Your task to perform on an android device: Empty the shopping cart on target. Search for logitech g pro on target, select the first entry, add it to the cart, then select checkout. Image 0: 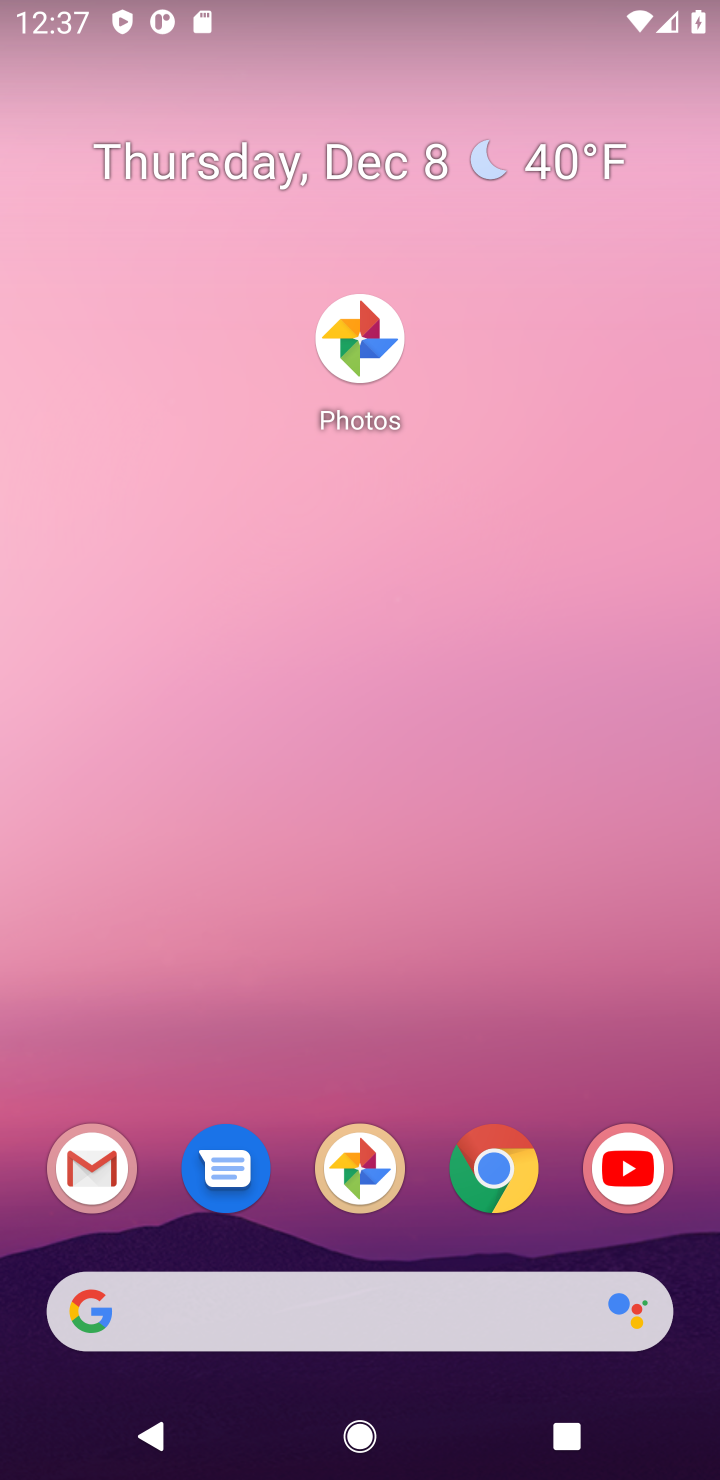
Step 0: drag from (360, 1212) to (487, 439)
Your task to perform on an android device: Empty the shopping cart on target. Search for logitech g pro on target, select the first entry, add it to the cart, then select checkout. Image 1: 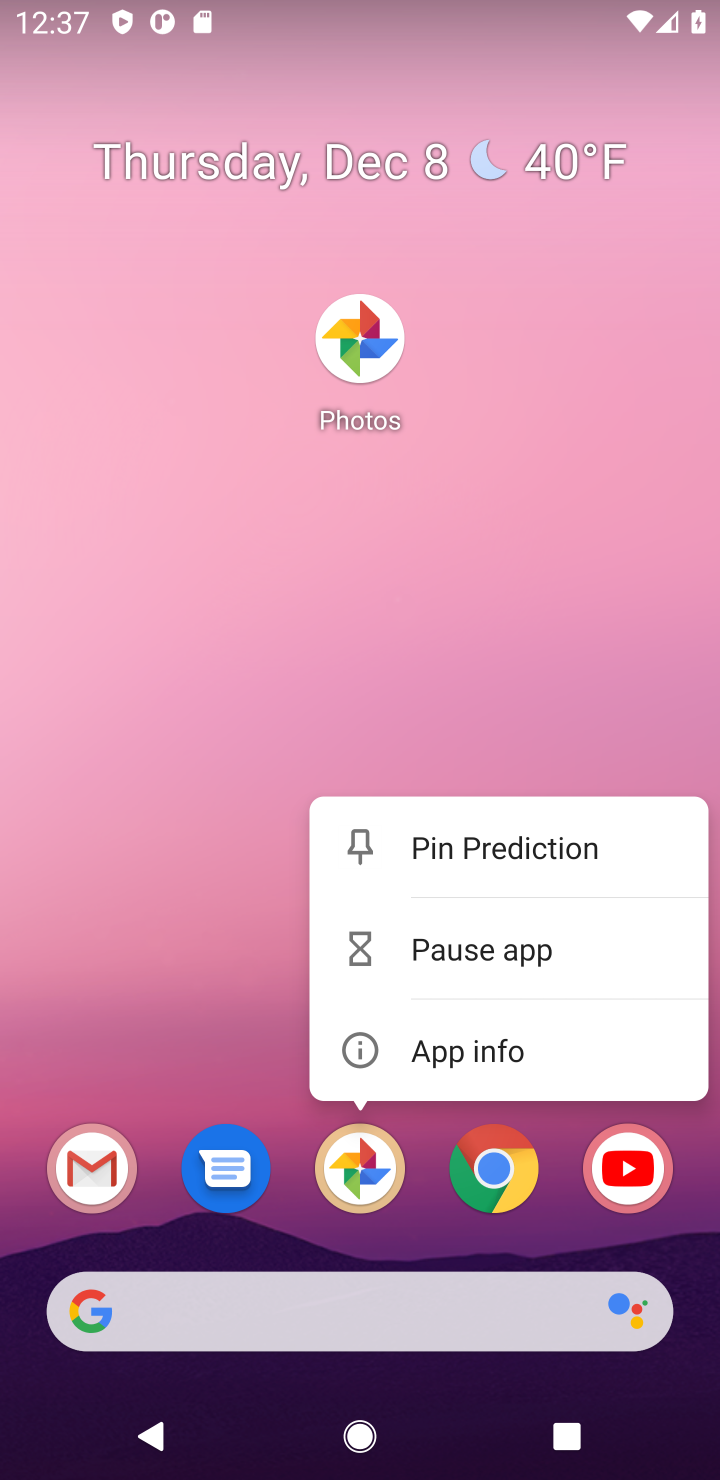
Step 1: drag from (203, 1128) to (295, 380)
Your task to perform on an android device: Empty the shopping cart on target. Search for logitech g pro on target, select the first entry, add it to the cart, then select checkout. Image 2: 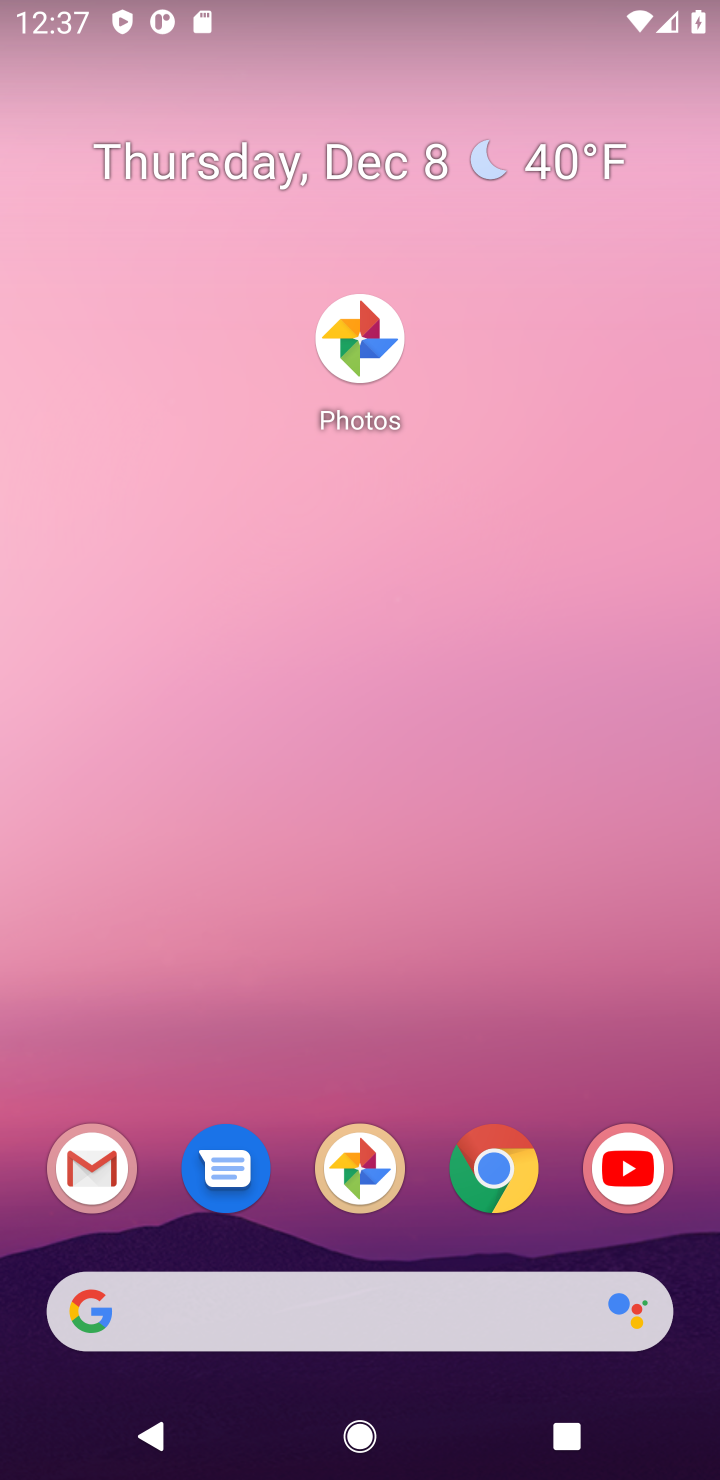
Step 2: drag from (290, 1082) to (288, 698)
Your task to perform on an android device: Empty the shopping cart on target. Search for logitech g pro on target, select the first entry, add it to the cart, then select checkout. Image 3: 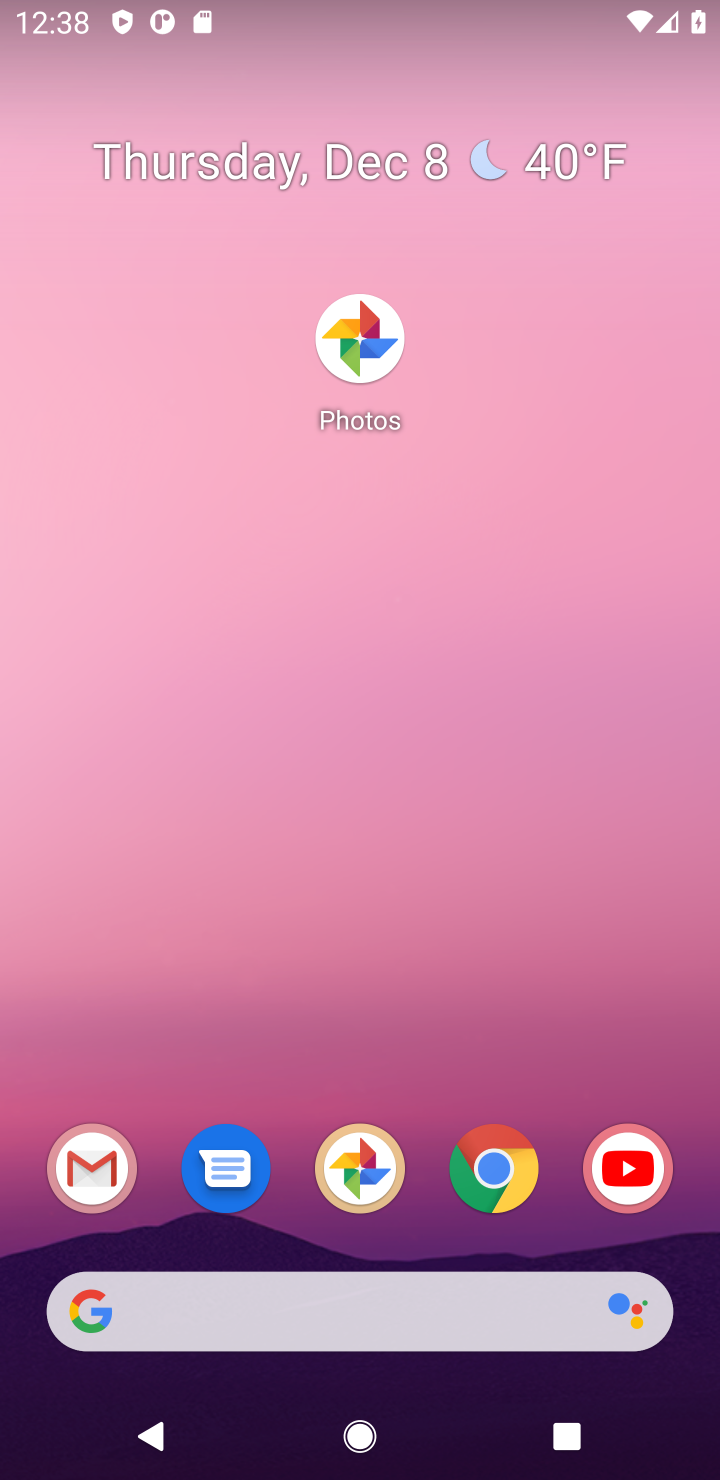
Step 3: drag from (415, 1067) to (438, 217)
Your task to perform on an android device: Empty the shopping cart on target. Search for logitech g pro on target, select the first entry, add it to the cart, then select checkout. Image 4: 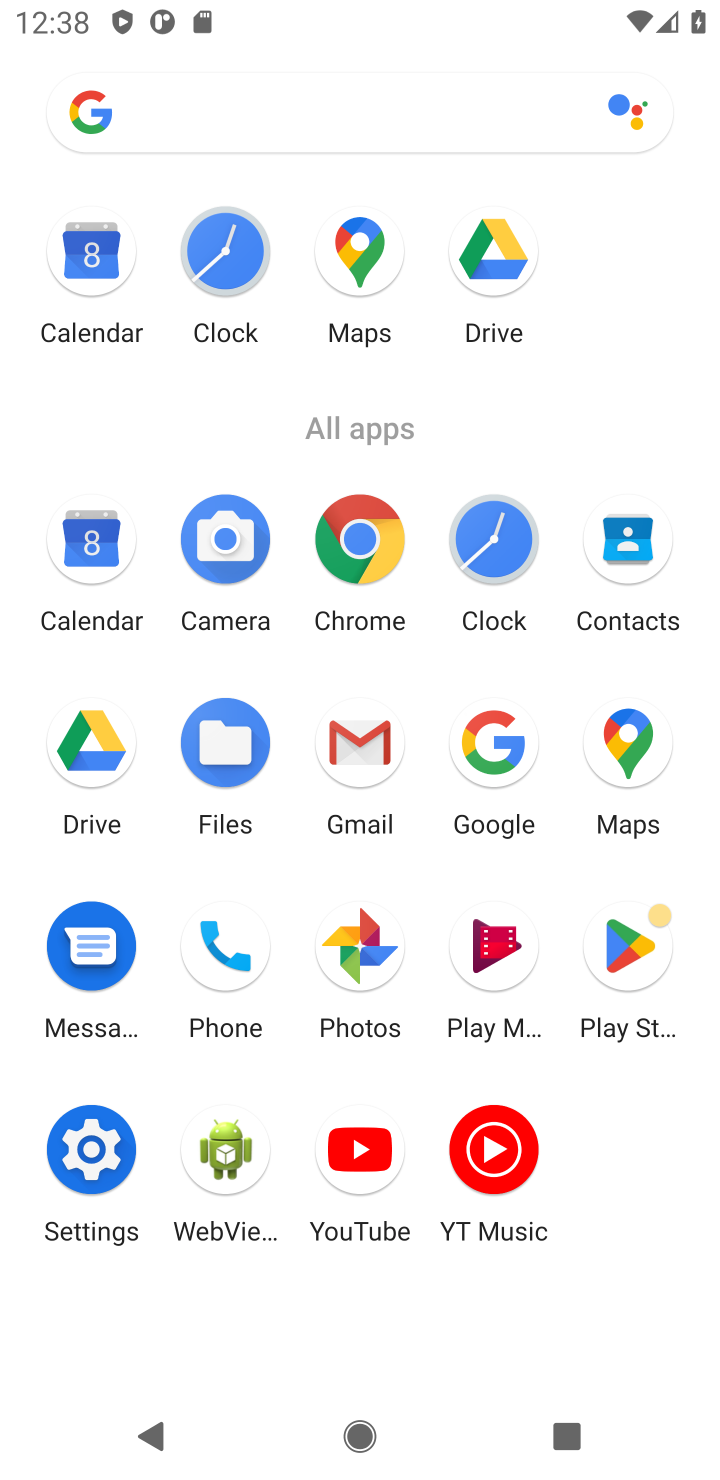
Step 4: click (502, 744)
Your task to perform on an android device: Empty the shopping cart on target. Search for logitech g pro on target, select the first entry, add it to the cart, then select checkout. Image 5: 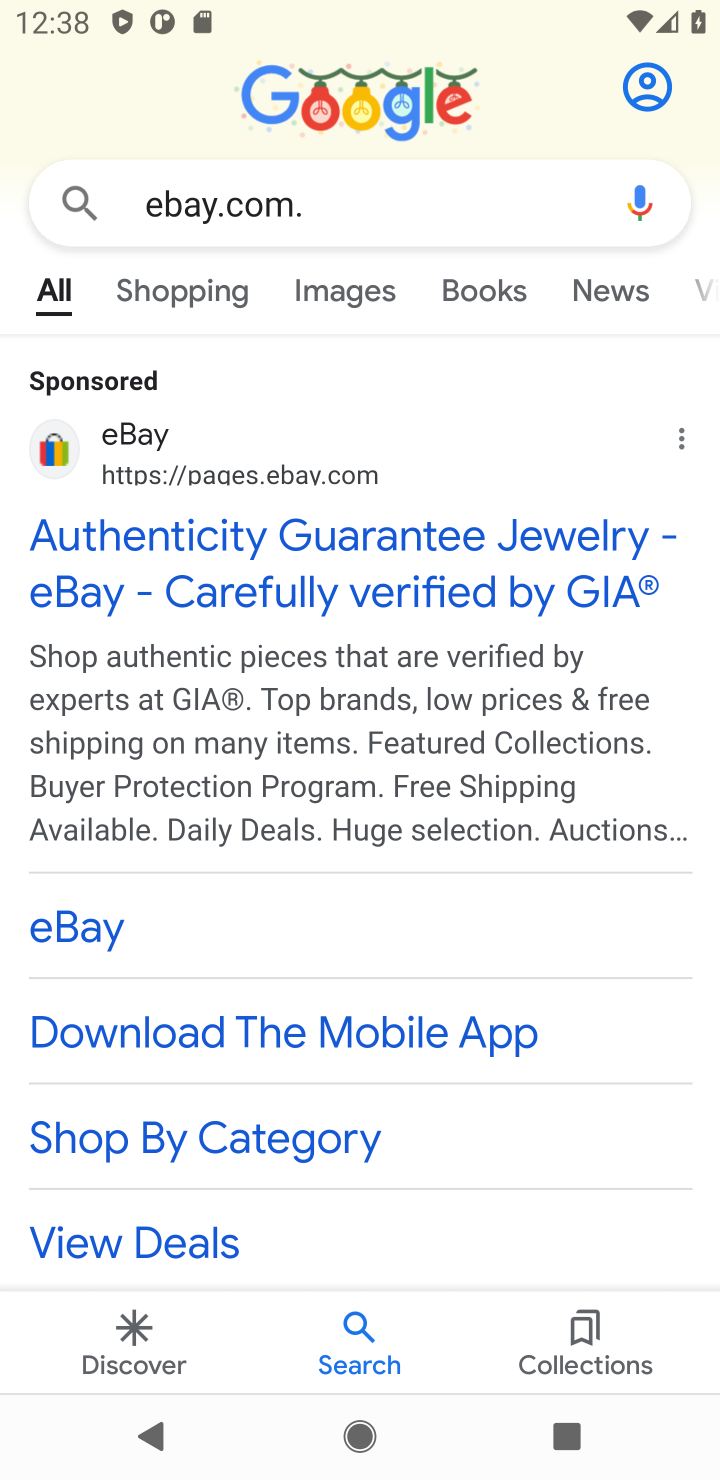
Step 5: click (254, 204)
Your task to perform on an android device: Empty the shopping cart on target. Search for logitech g pro on target, select the first entry, add it to the cart, then select checkout. Image 6: 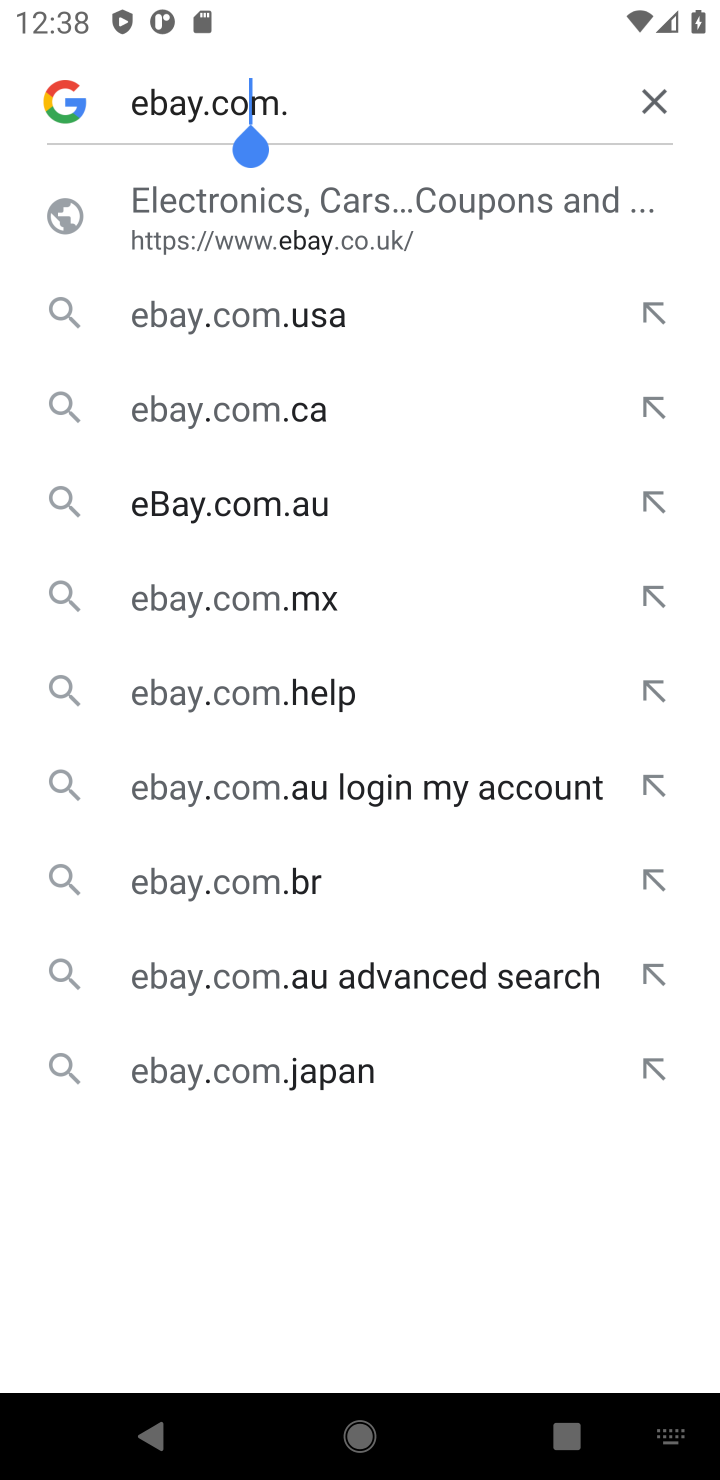
Step 6: click (638, 106)
Your task to perform on an android device: Empty the shopping cart on target. Search for logitech g pro on target, select the first entry, add it to the cart, then select checkout. Image 7: 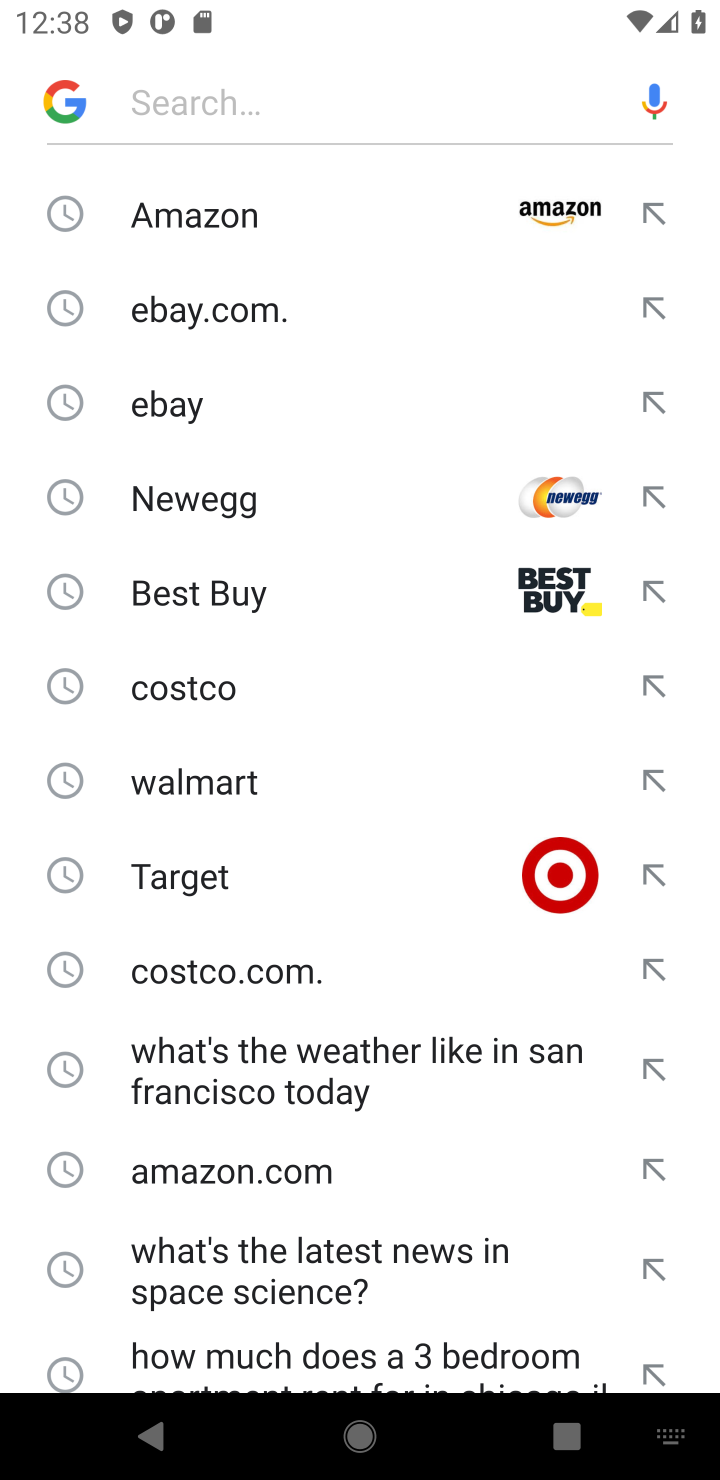
Step 7: click (215, 876)
Your task to perform on an android device: Empty the shopping cart on target. Search for logitech g pro on target, select the first entry, add it to the cart, then select checkout. Image 8: 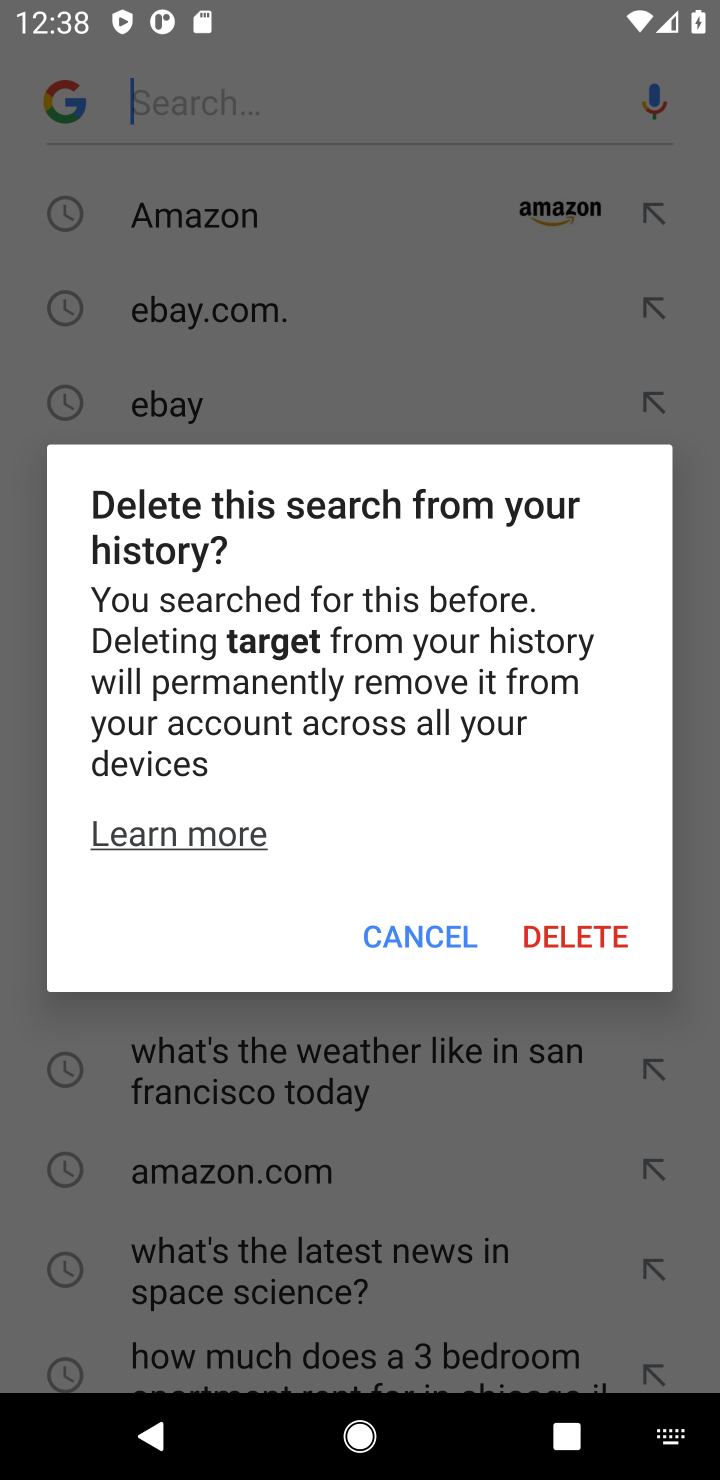
Step 8: click (410, 948)
Your task to perform on an android device: Empty the shopping cart on target. Search for logitech g pro on target, select the first entry, add it to the cart, then select checkout. Image 9: 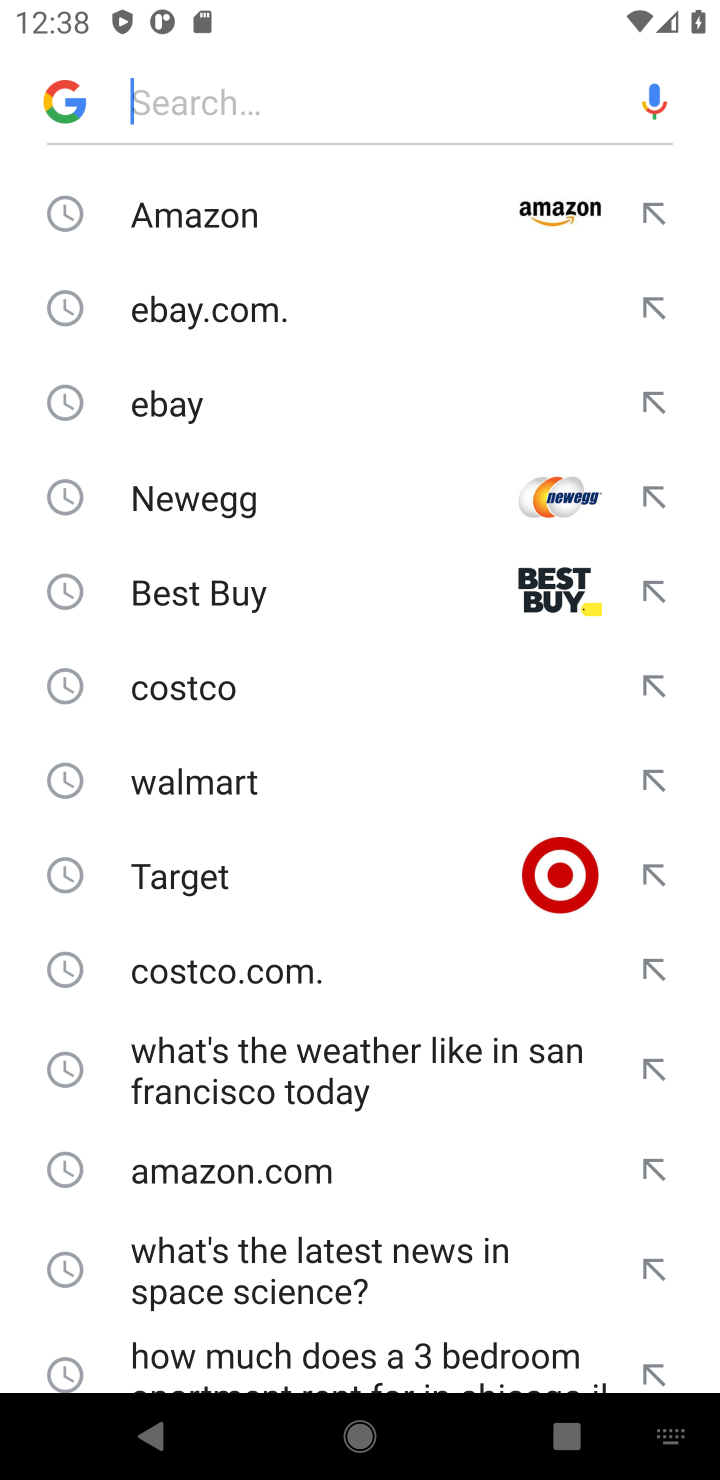
Step 9: click (583, 872)
Your task to perform on an android device: Empty the shopping cart on target. Search for logitech g pro on target, select the first entry, add it to the cart, then select checkout. Image 10: 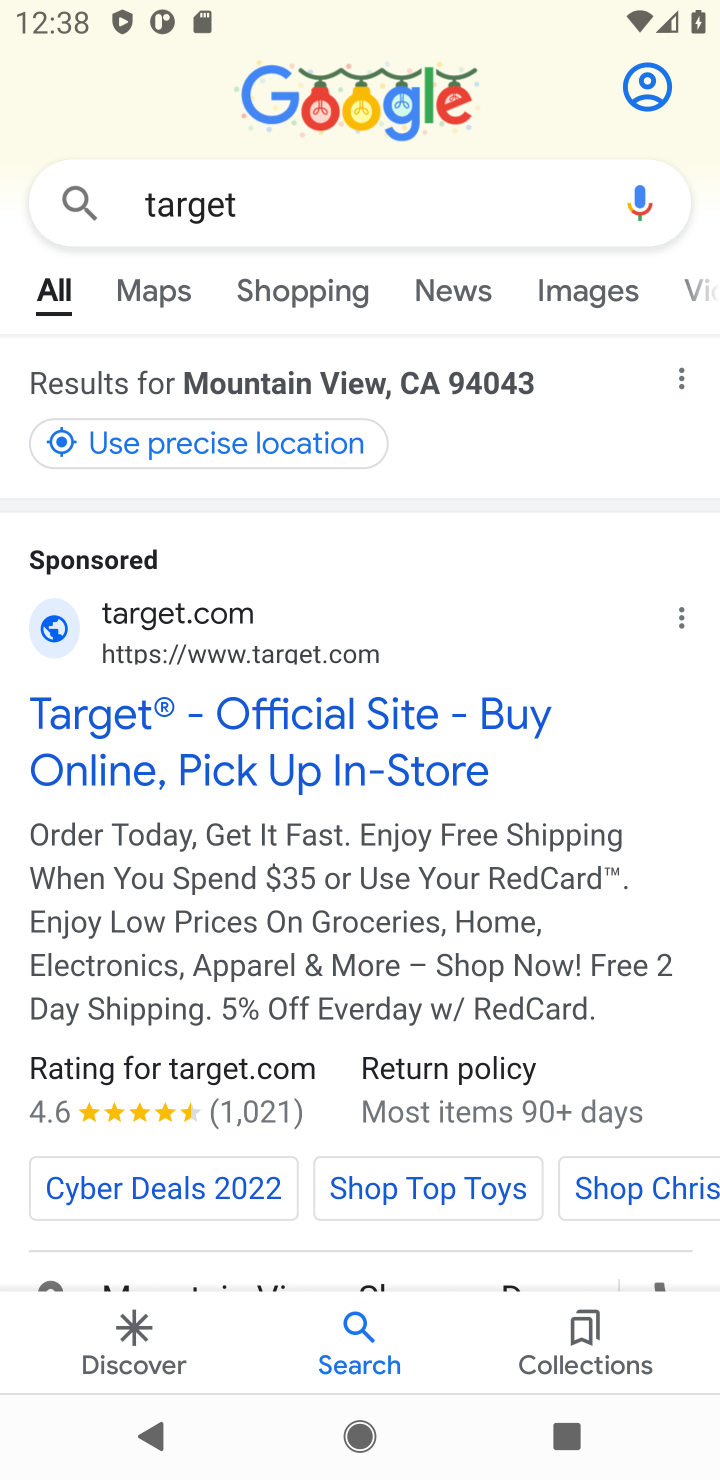
Step 10: click (245, 747)
Your task to perform on an android device: Empty the shopping cart on target. Search for logitech g pro on target, select the first entry, add it to the cart, then select checkout. Image 11: 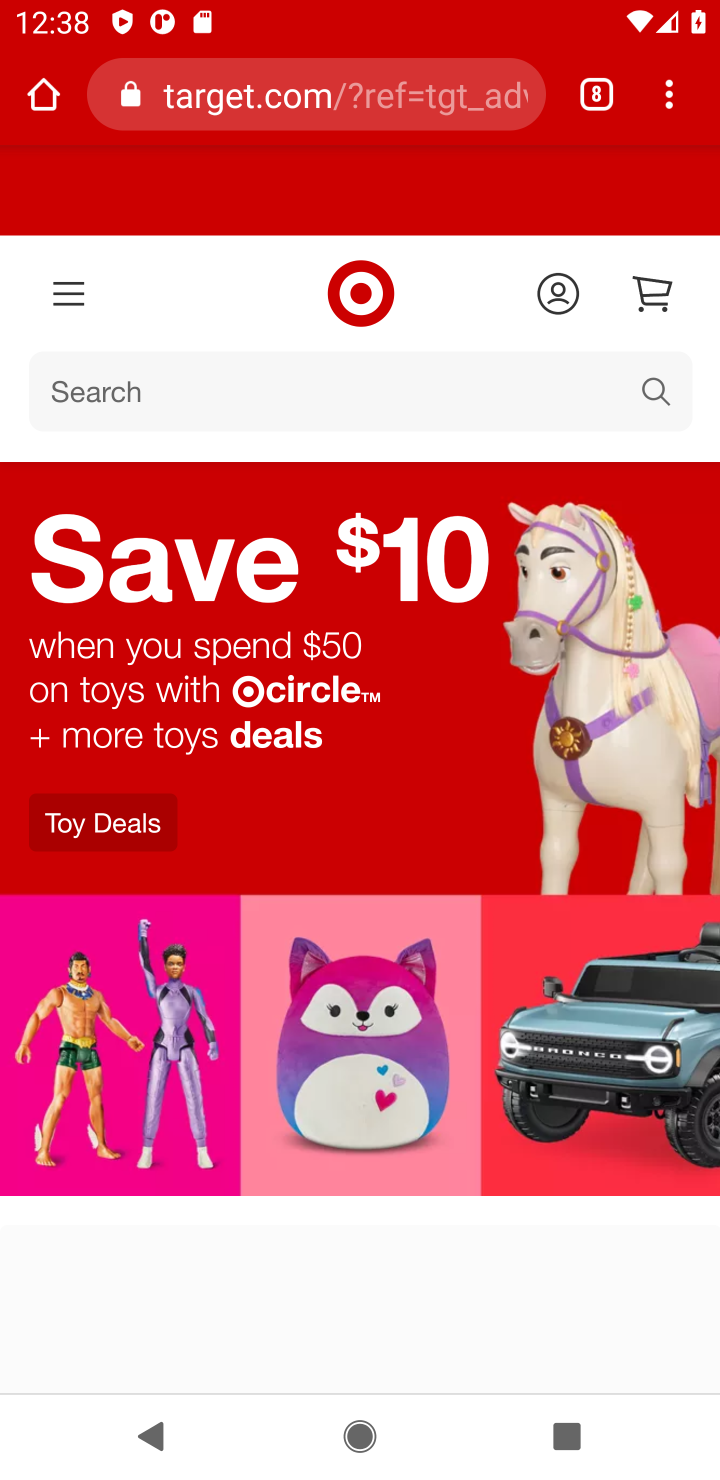
Step 11: click (270, 405)
Your task to perform on an android device: Empty the shopping cart on target. Search for logitech g pro on target, select the first entry, add it to the cart, then select checkout. Image 12: 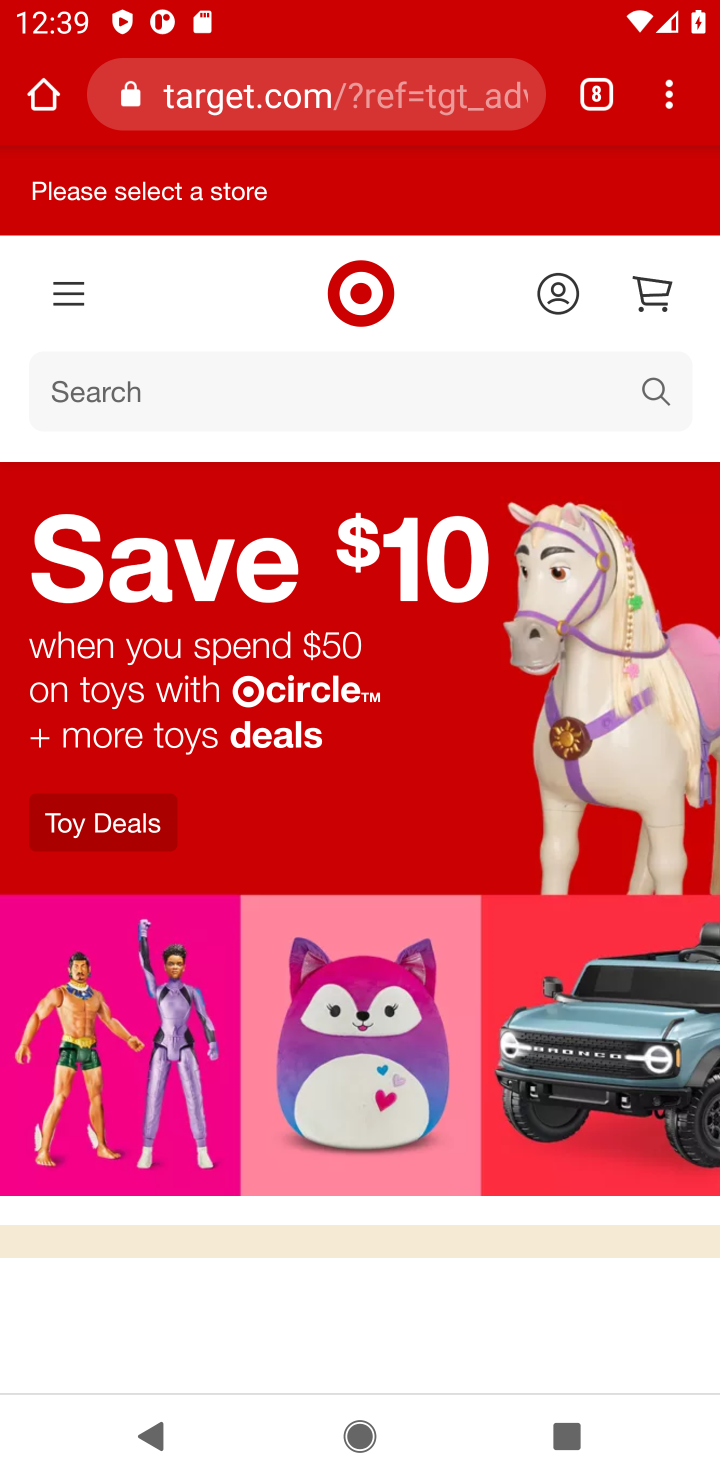
Step 12: click (157, 380)
Your task to perform on an android device: Empty the shopping cart on target. Search for logitech g pro on target, select the first entry, add it to the cart, then select checkout. Image 13: 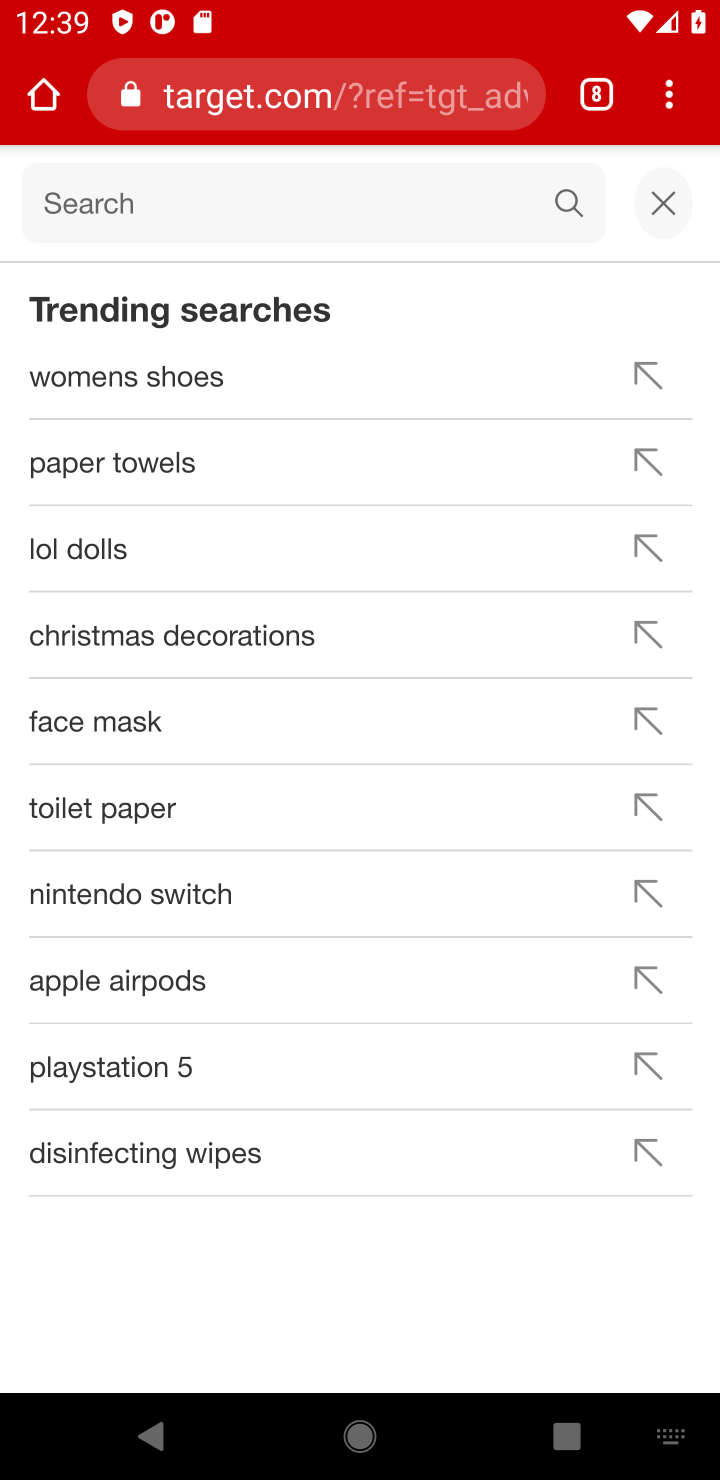
Step 13: click (659, 202)
Your task to perform on an android device: Empty the shopping cart on target. Search for logitech g pro on target, select the first entry, add it to the cart, then select checkout. Image 14: 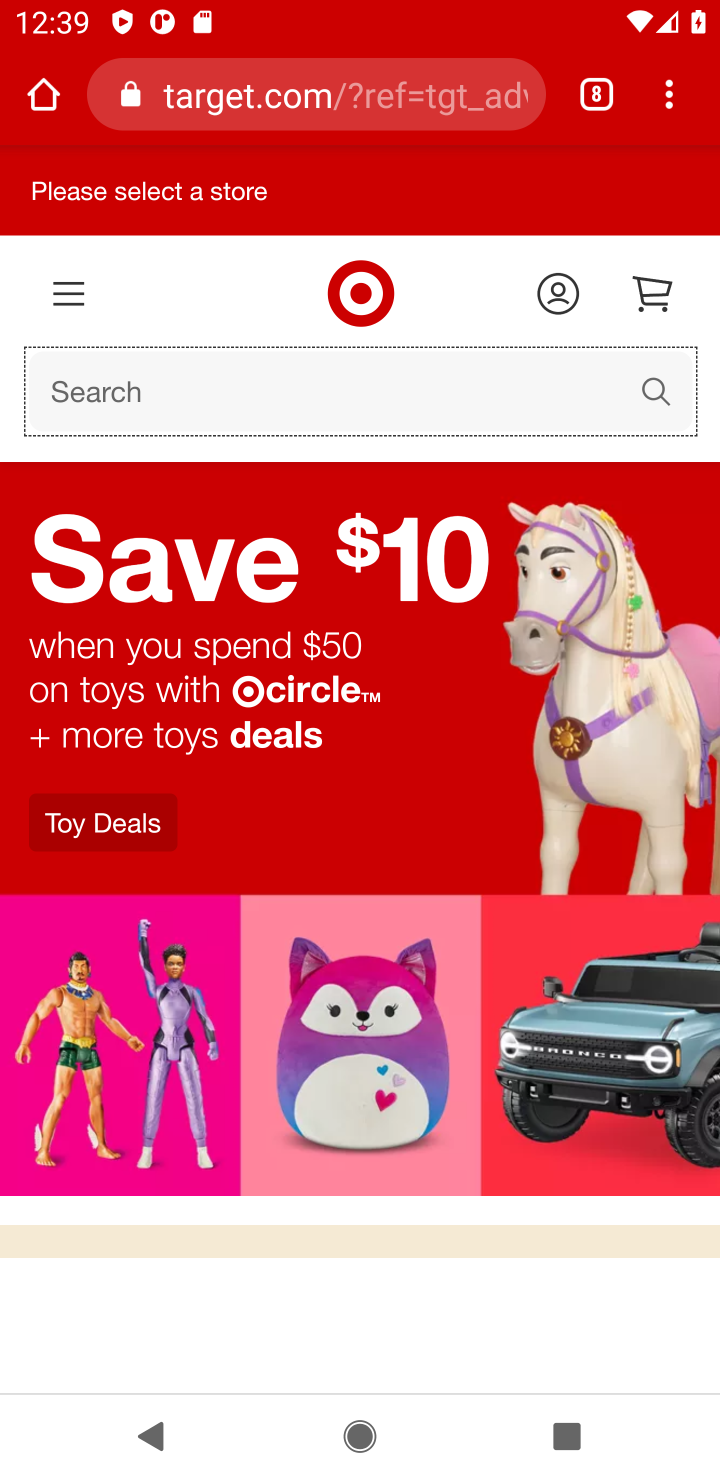
Step 14: click (251, 394)
Your task to perform on an android device: Empty the shopping cart on target. Search for logitech g pro on target, select the first entry, add it to the cart, then select checkout. Image 15: 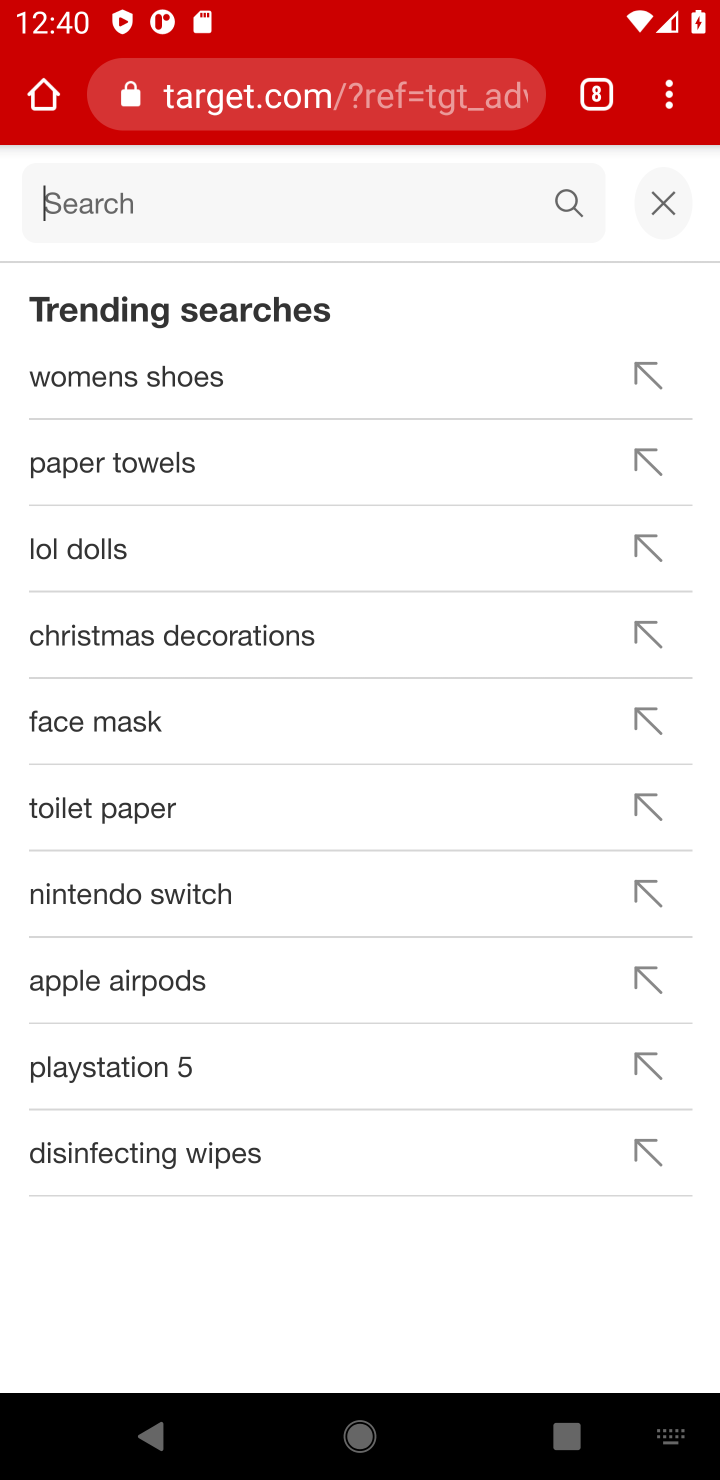
Step 15: type "logitech g pro"
Your task to perform on an android device: Empty the shopping cart on target. Search for logitech g pro on target, select the first entry, add it to the cart, then select checkout. Image 16: 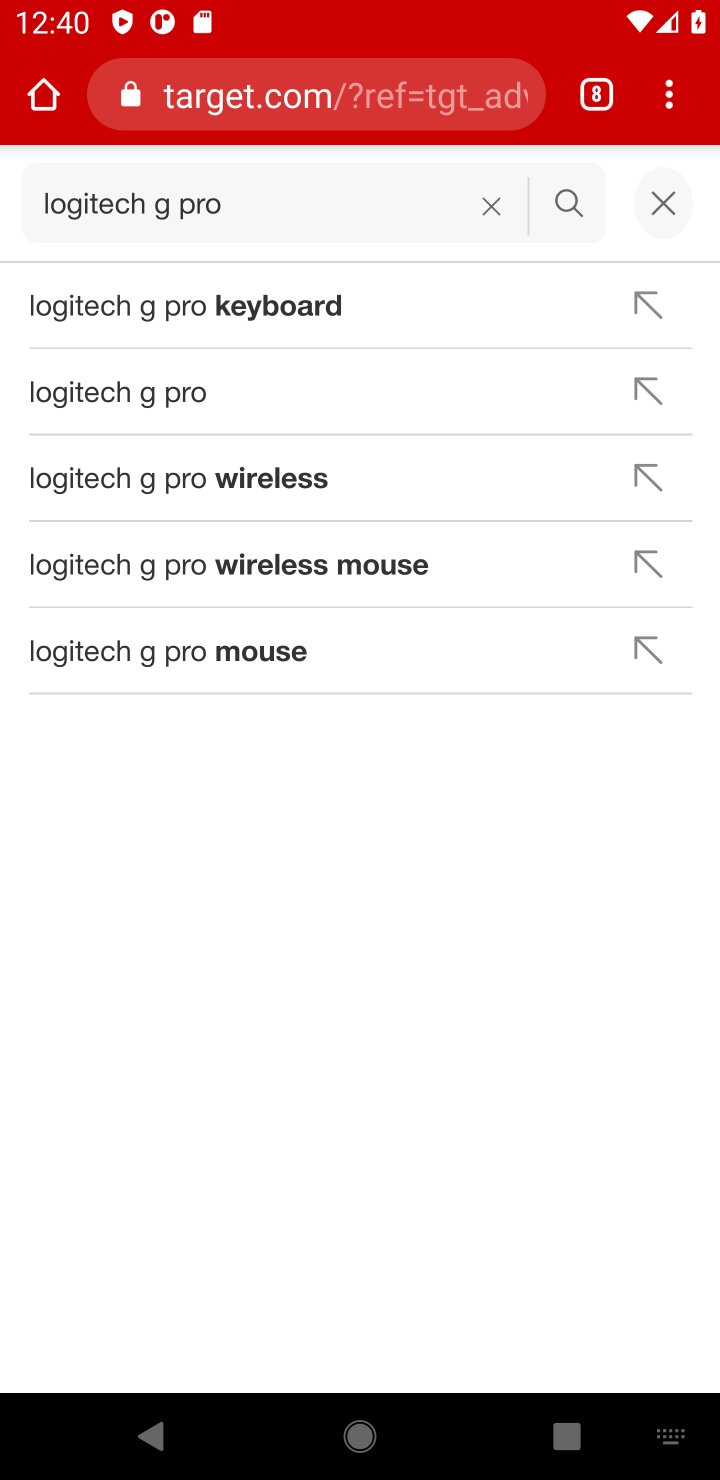
Step 16: click (138, 400)
Your task to perform on an android device: Empty the shopping cart on target. Search for logitech g pro on target, select the first entry, add it to the cart, then select checkout. Image 17: 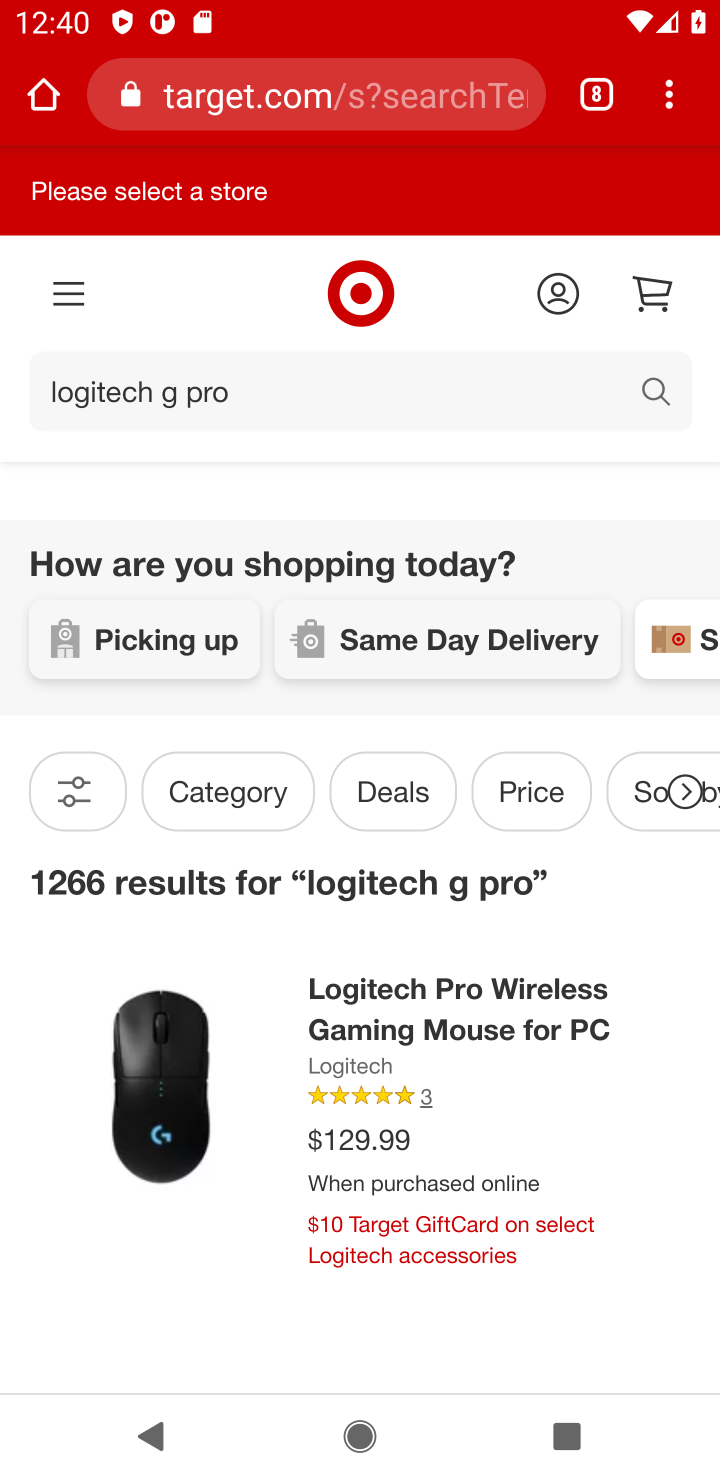
Step 17: drag from (249, 1260) to (321, 600)
Your task to perform on an android device: Empty the shopping cart on target. Search for logitech g pro on target, select the first entry, add it to the cart, then select checkout. Image 18: 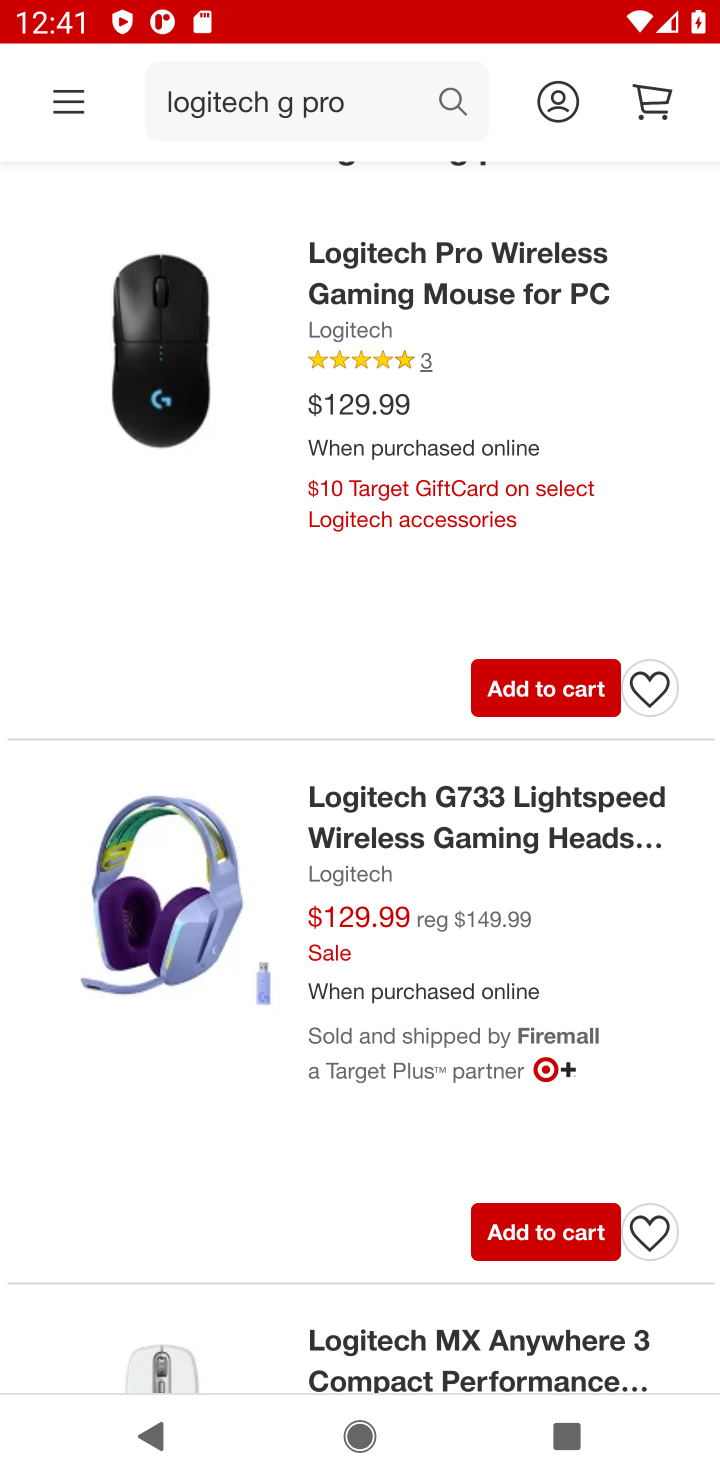
Step 18: click (524, 685)
Your task to perform on an android device: Empty the shopping cart on target. Search for logitech g pro on target, select the first entry, add it to the cart, then select checkout. Image 19: 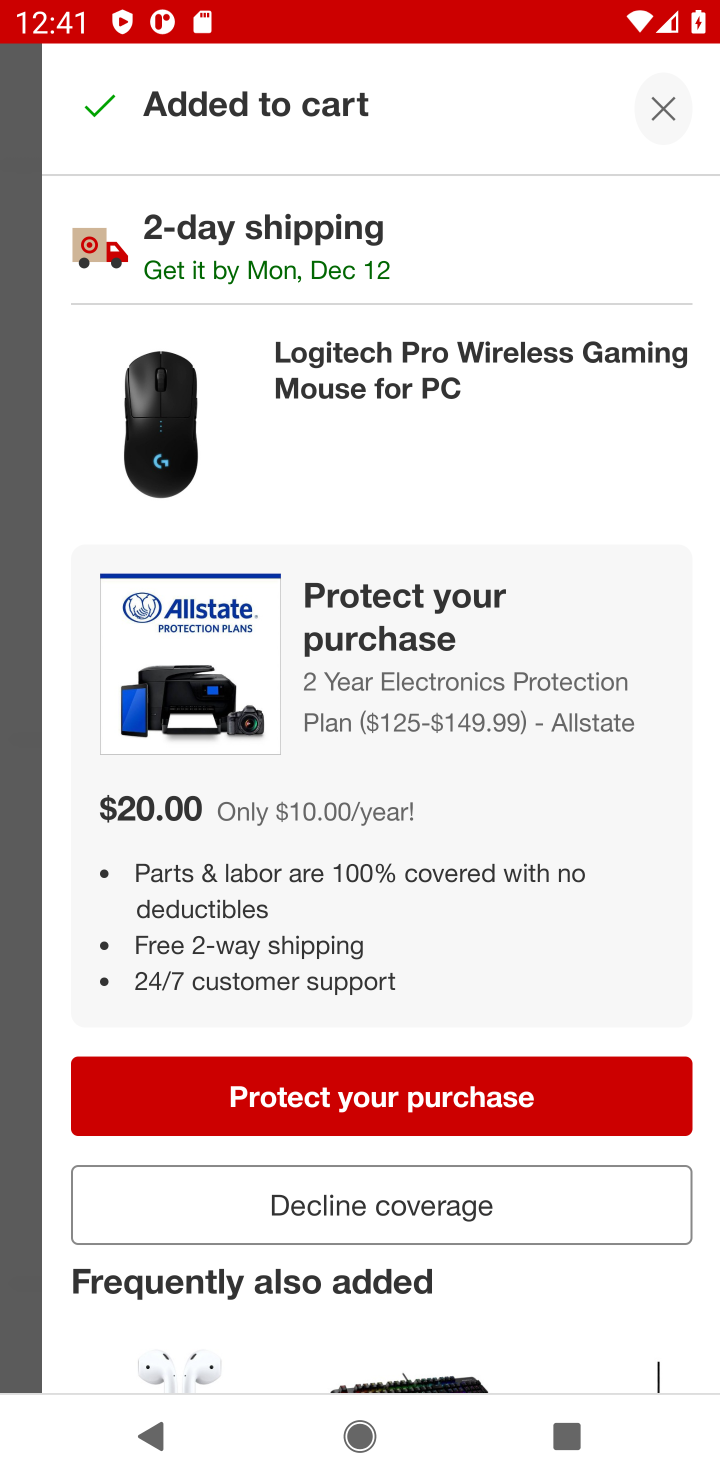
Step 19: click (666, 100)
Your task to perform on an android device: Empty the shopping cart on target. Search for logitech g pro on target, select the first entry, add it to the cart, then select checkout. Image 20: 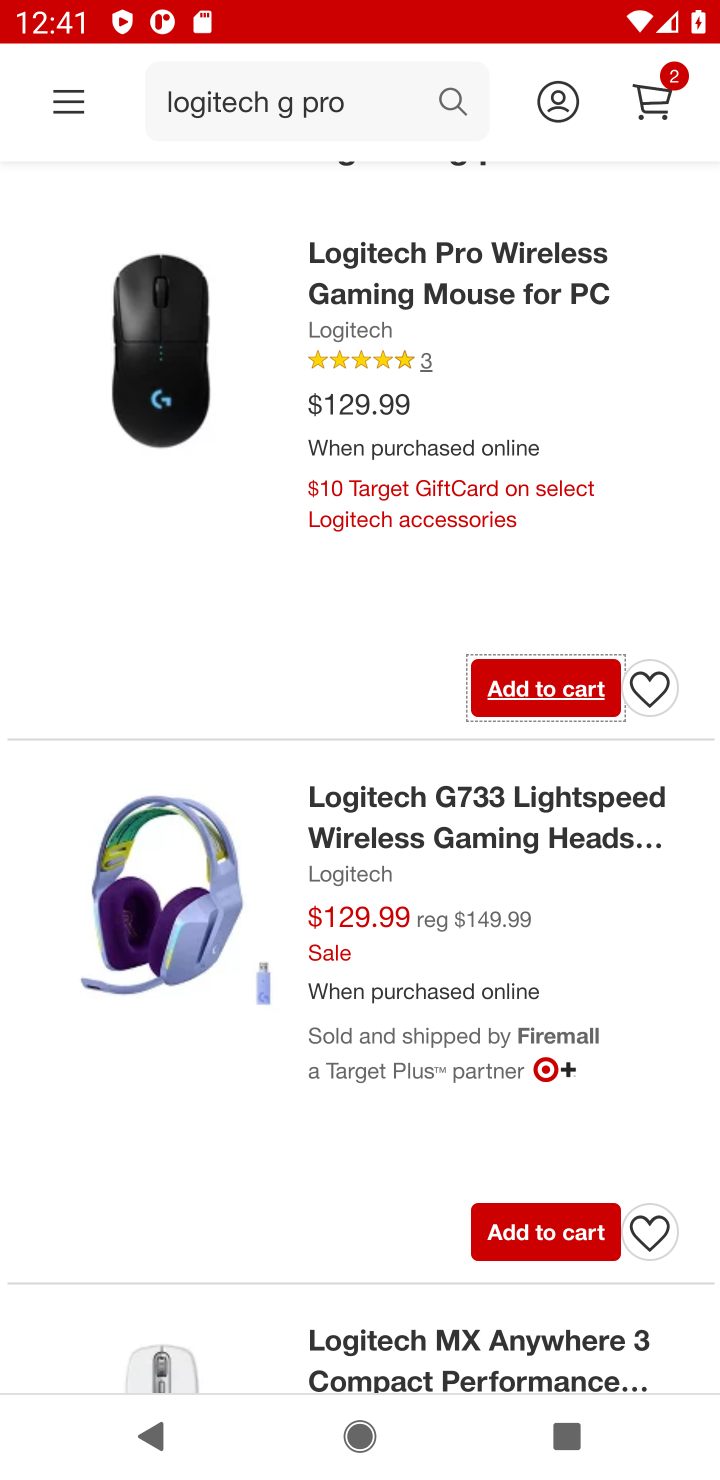
Step 20: click (659, 95)
Your task to perform on an android device: Empty the shopping cart on target. Search for logitech g pro on target, select the first entry, add it to the cart, then select checkout. Image 21: 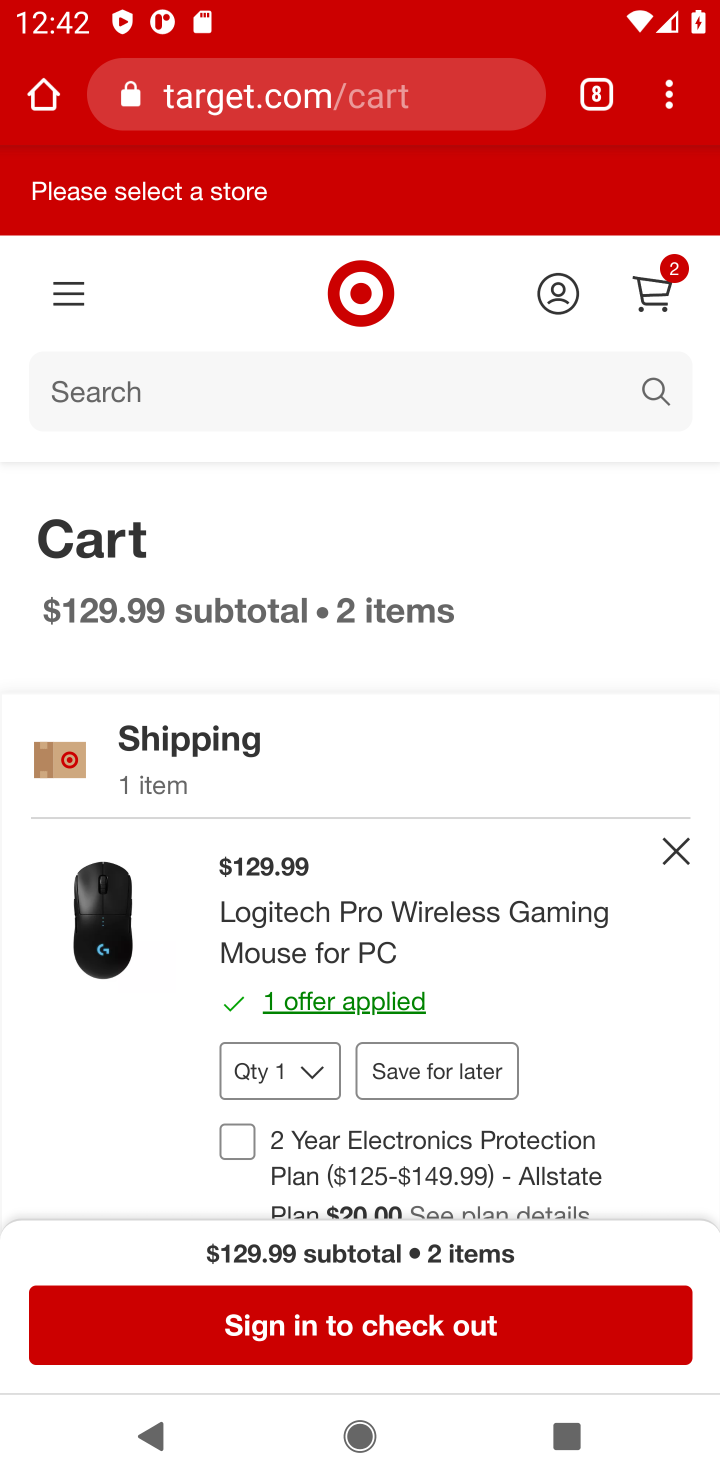
Step 21: drag from (582, 1212) to (588, 624)
Your task to perform on an android device: Empty the shopping cart on target. Search for logitech g pro on target, select the first entry, add it to the cart, then select checkout. Image 22: 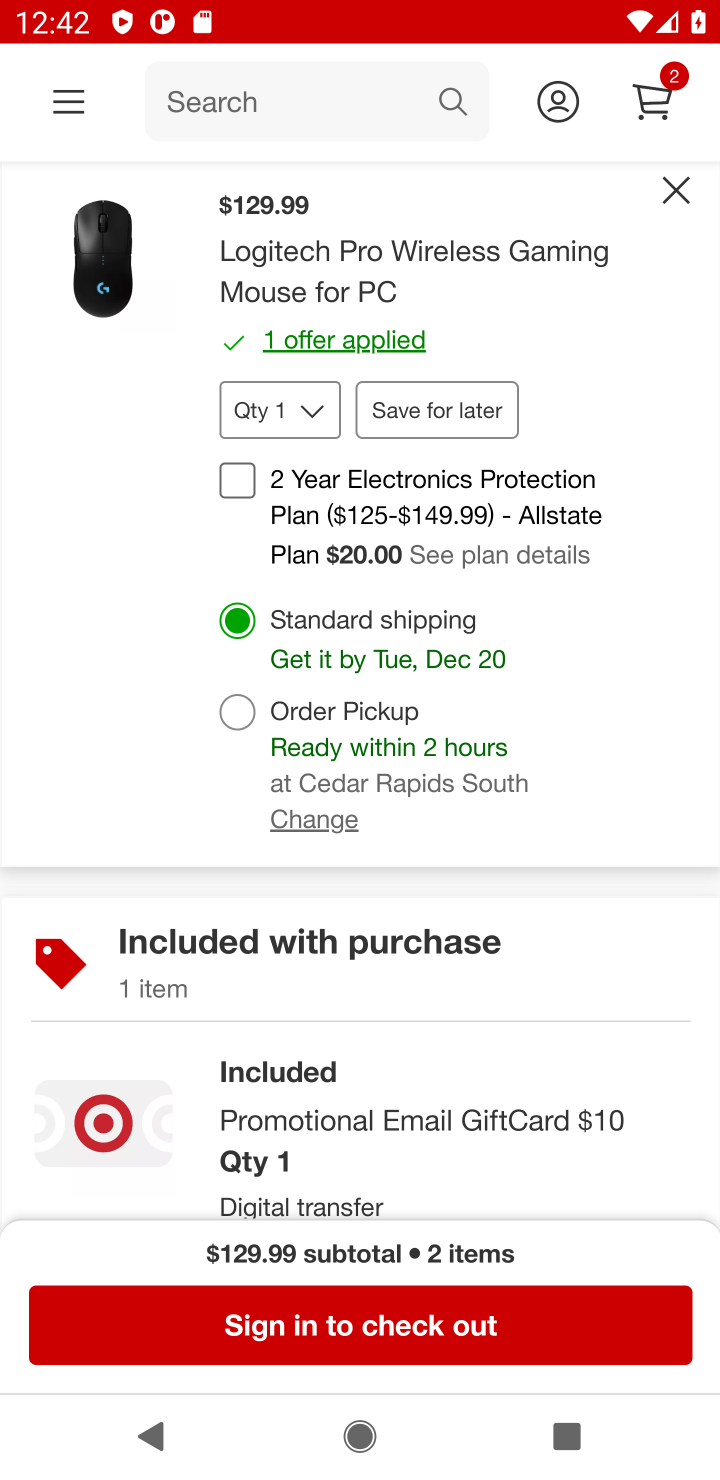
Step 22: drag from (354, 1190) to (507, 490)
Your task to perform on an android device: Empty the shopping cart on target. Search for logitech g pro on target, select the first entry, add it to the cart, then select checkout. Image 23: 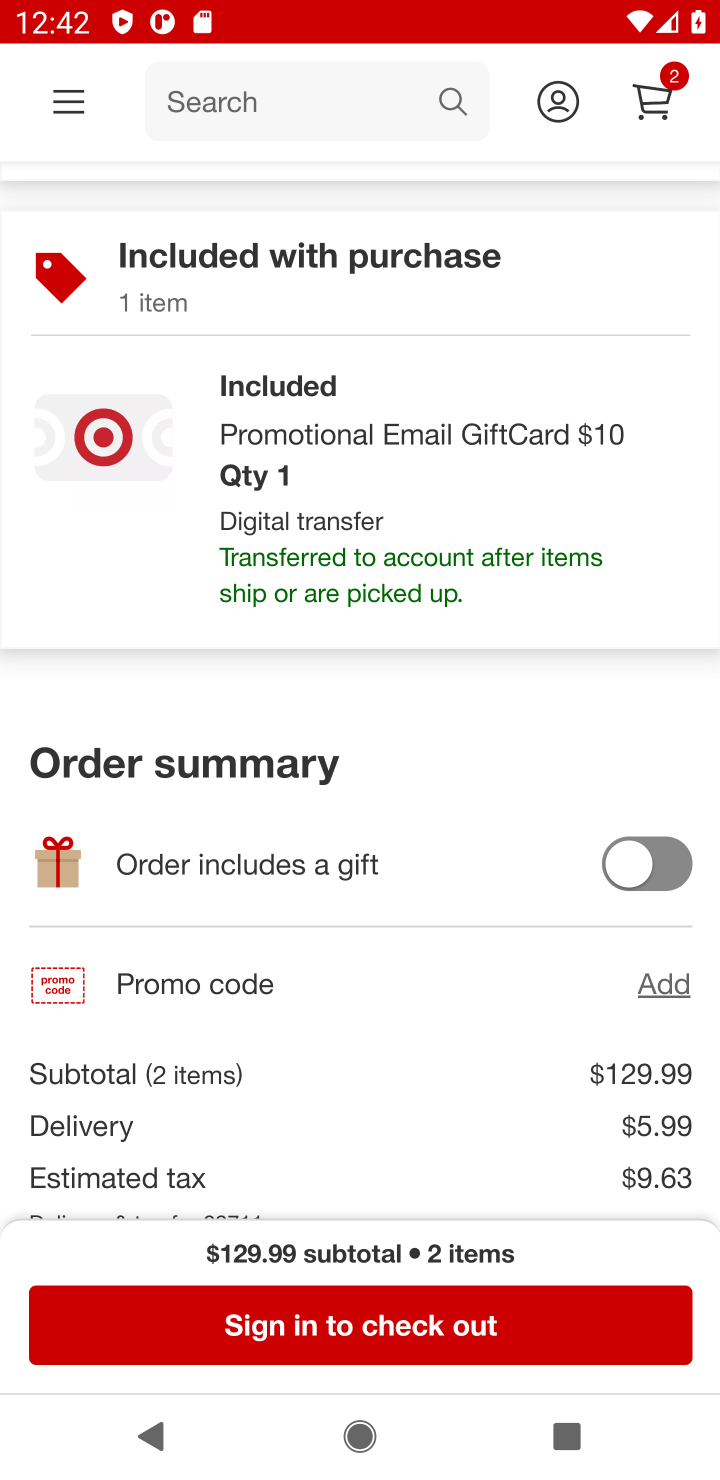
Step 23: click (408, 1326)
Your task to perform on an android device: Empty the shopping cart on target. Search for logitech g pro on target, select the first entry, add it to the cart, then select checkout. Image 24: 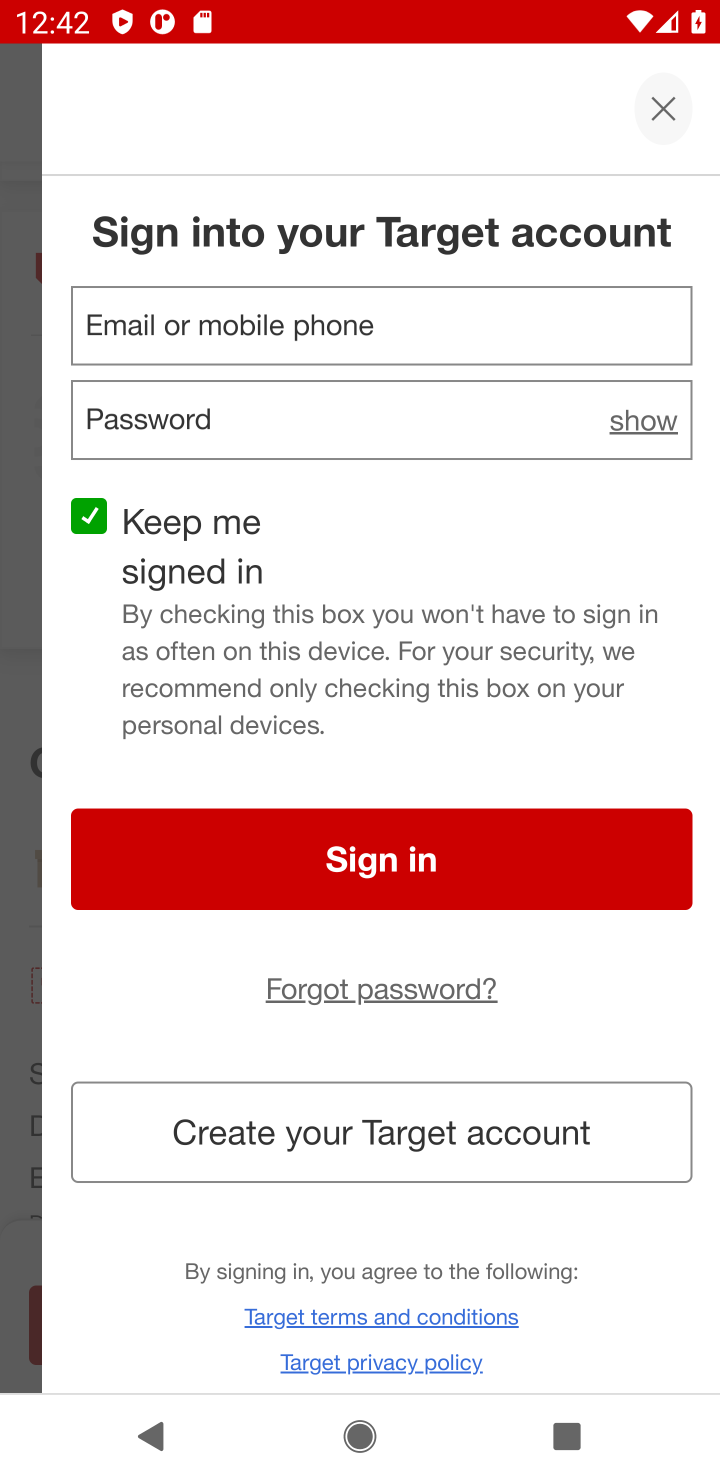
Step 24: task complete